Your task to perform on an android device: find photos in the google photos app Image 0: 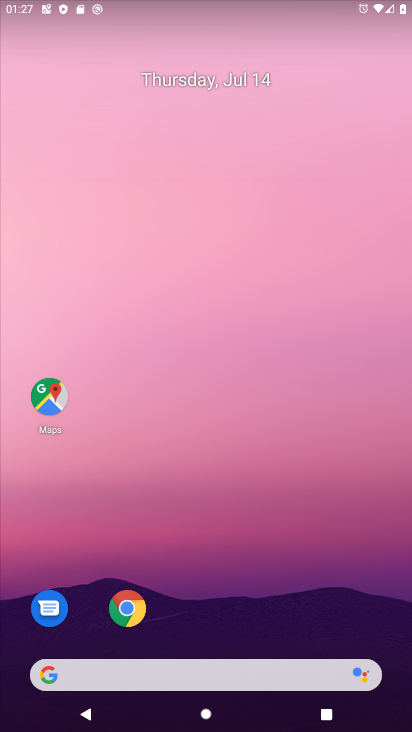
Step 0: press home button
Your task to perform on an android device: find photos in the google photos app Image 1: 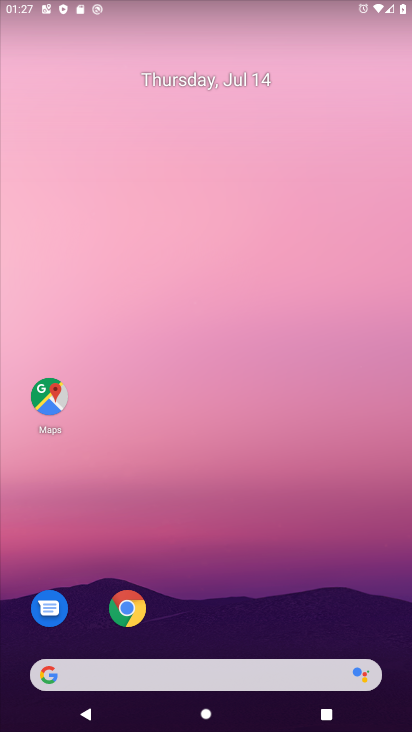
Step 1: drag from (286, 617) to (227, 54)
Your task to perform on an android device: find photos in the google photos app Image 2: 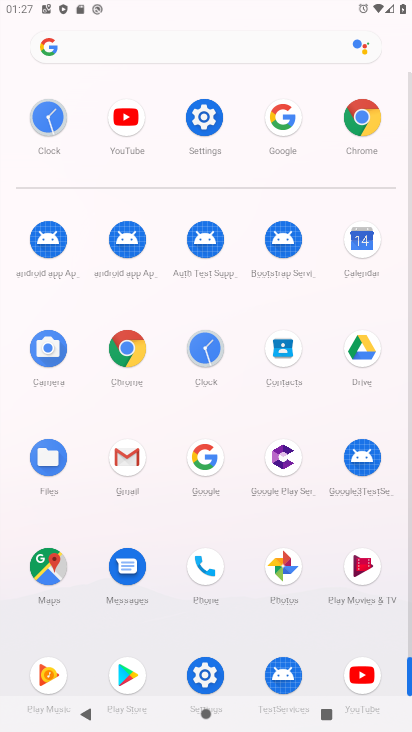
Step 2: click (269, 559)
Your task to perform on an android device: find photos in the google photos app Image 3: 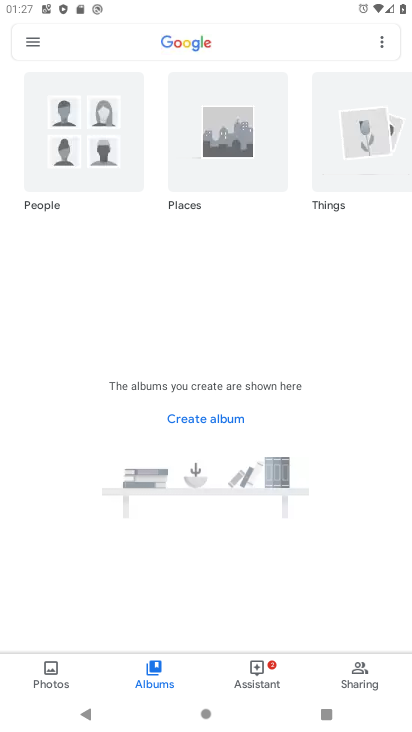
Step 3: click (22, 700)
Your task to perform on an android device: find photos in the google photos app Image 4: 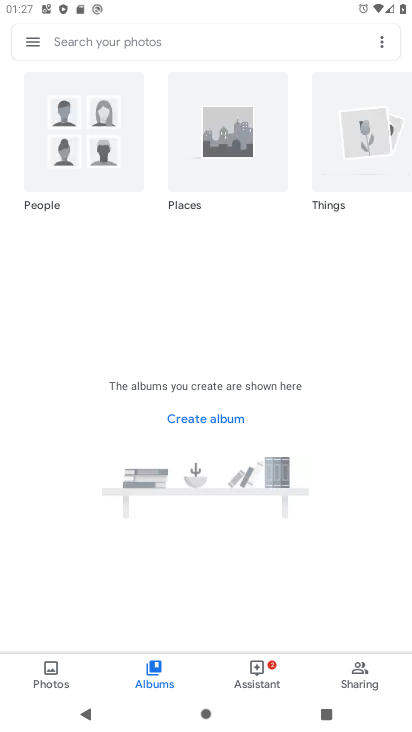
Step 4: click (38, 682)
Your task to perform on an android device: find photos in the google photos app Image 5: 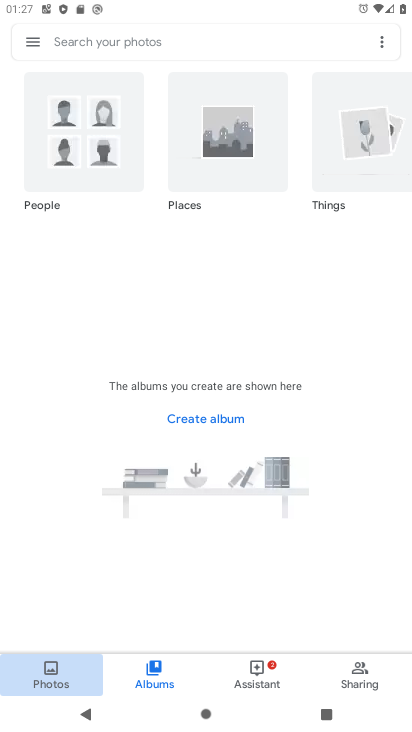
Step 5: click (38, 682)
Your task to perform on an android device: find photos in the google photos app Image 6: 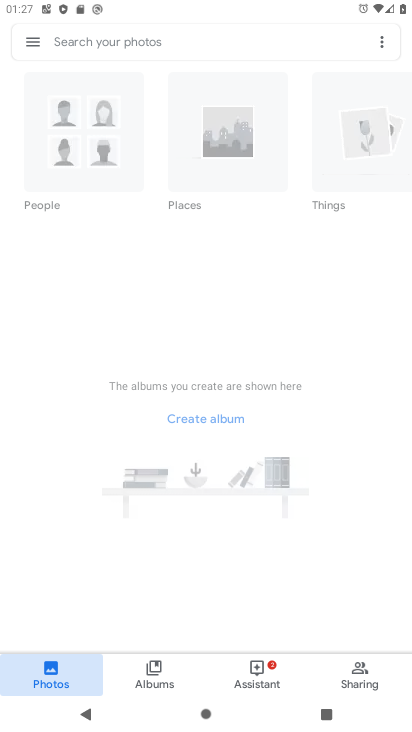
Step 6: click (38, 682)
Your task to perform on an android device: find photos in the google photos app Image 7: 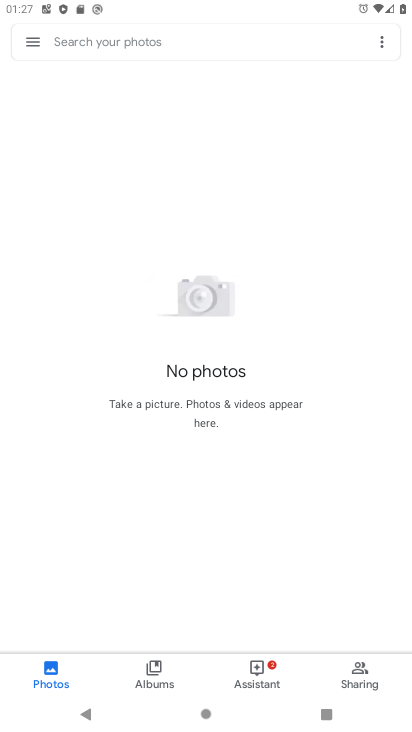
Step 7: task complete